Your task to perform on an android device: turn on notifications settings in the gmail app Image 0: 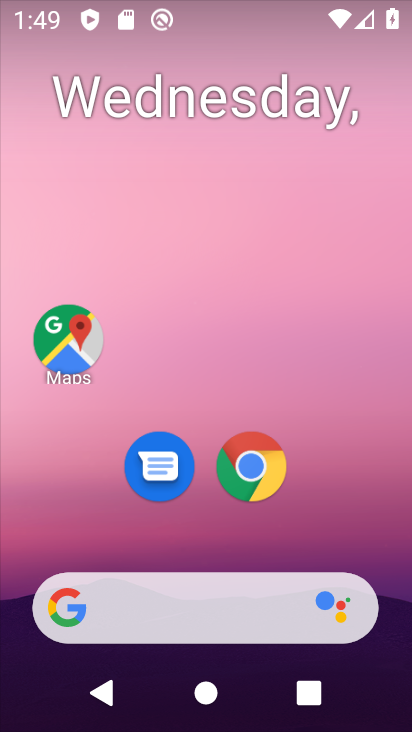
Step 0: drag from (376, 517) to (286, 38)
Your task to perform on an android device: turn on notifications settings in the gmail app Image 1: 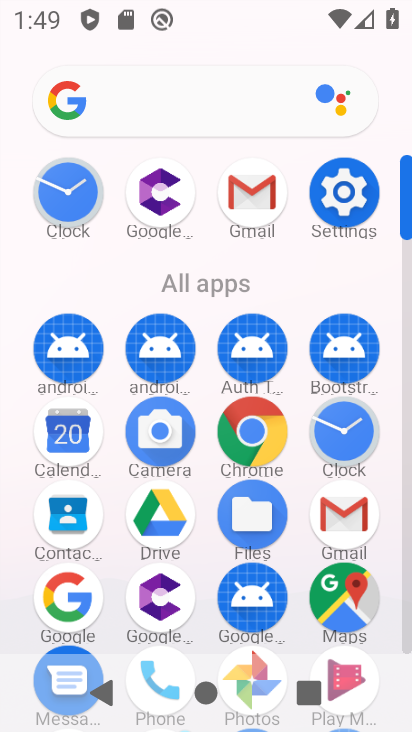
Step 1: drag from (12, 562) to (1, 255)
Your task to perform on an android device: turn on notifications settings in the gmail app Image 2: 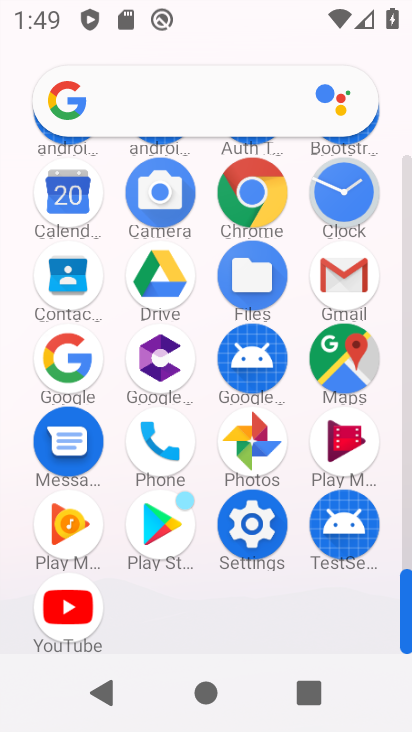
Step 2: click (341, 268)
Your task to perform on an android device: turn on notifications settings in the gmail app Image 3: 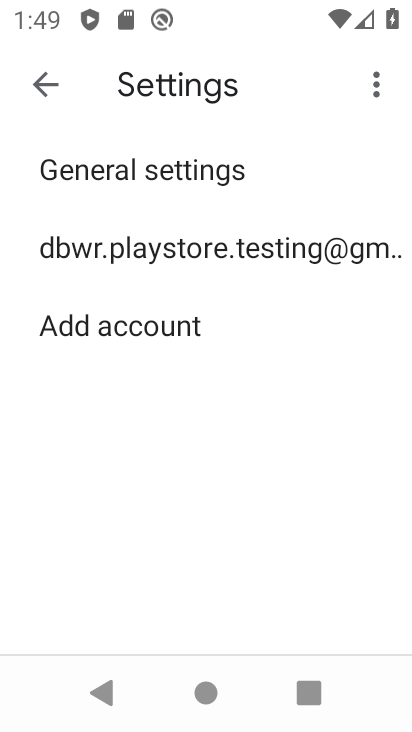
Step 3: click (310, 254)
Your task to perform on an android device: turn on notifications settings in the gmail app Image 4: 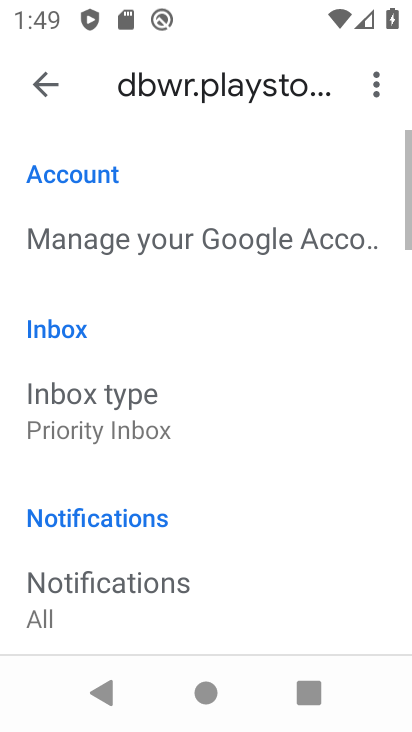
Step 4: drag from (280, 524) to (227, 182)
Your task to perform on an android device: turn on notifications settings in the gmail app Image 5: 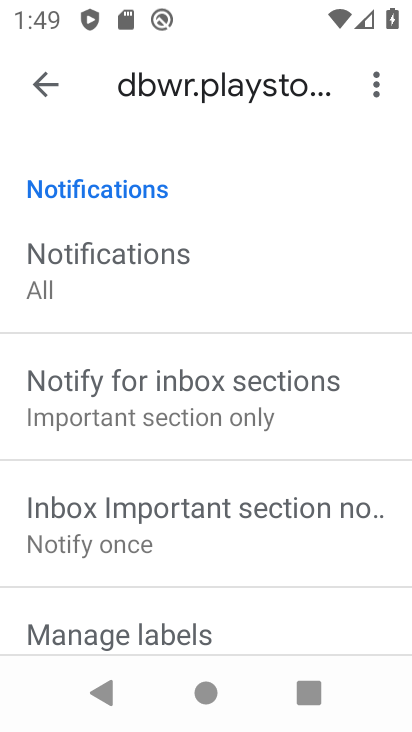
Step 5: click (153, 251)
Your task to perform on an android device: turn on notifications settings in the gmail app Image 6: 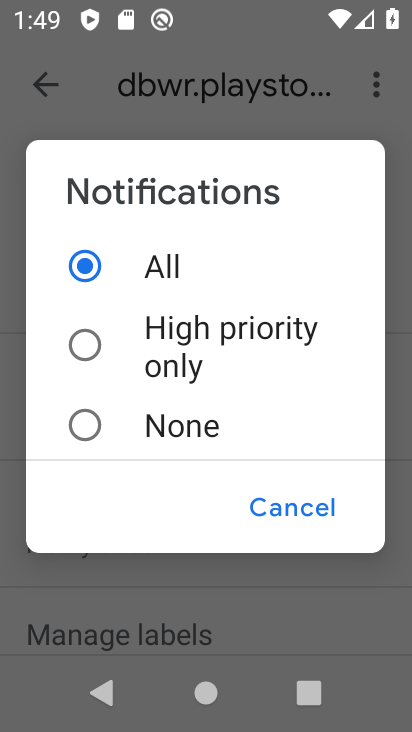
Step 6: click (297, 521)
Your task to perform on an android device: turn on notifications settings in the gmail app Image 7: 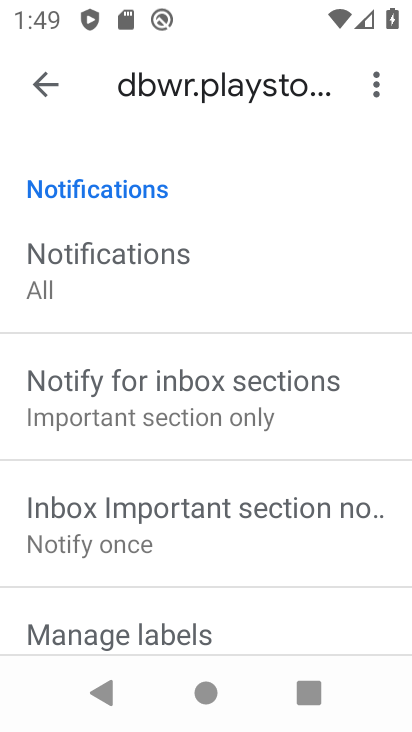
Step 7: drag from (287, 574) to (247, 226)
Your task to perform on an android device: turn on notifications settings in the gmail app Image 8: 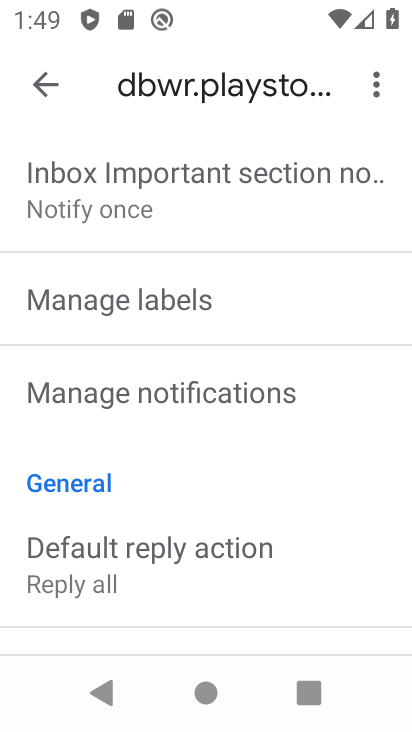
Step 8: click (169, 393)
Your task to perform on an android device: turn on notifications settings in the gmail app Image 9: 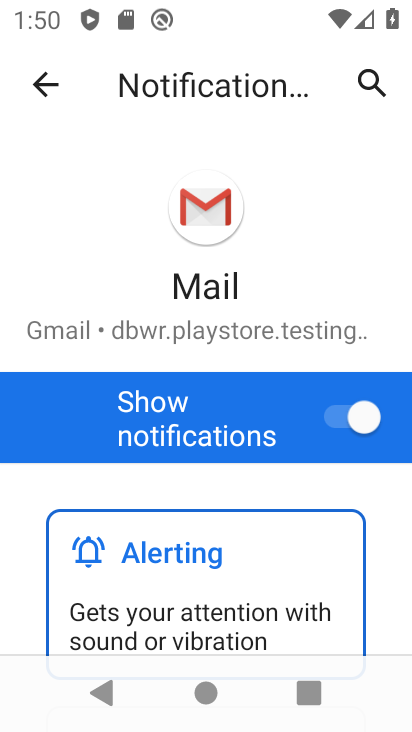
Step 9: task complete